Your task to perform on an android device: Open Google Chrome Image 0: 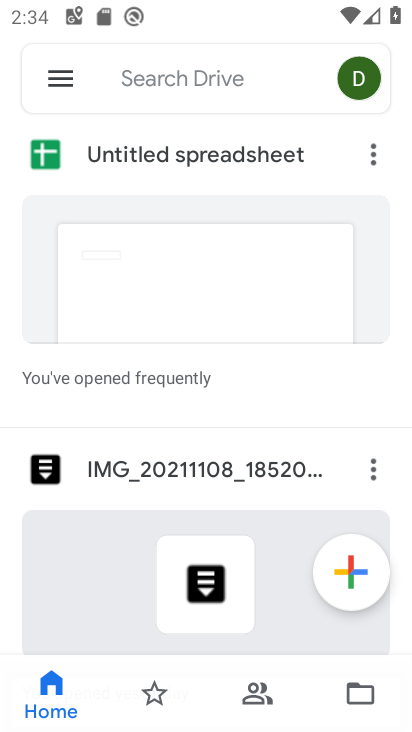
Step 0: press back button
Your task to perform on an android device: Open Google Chrome Image 1: 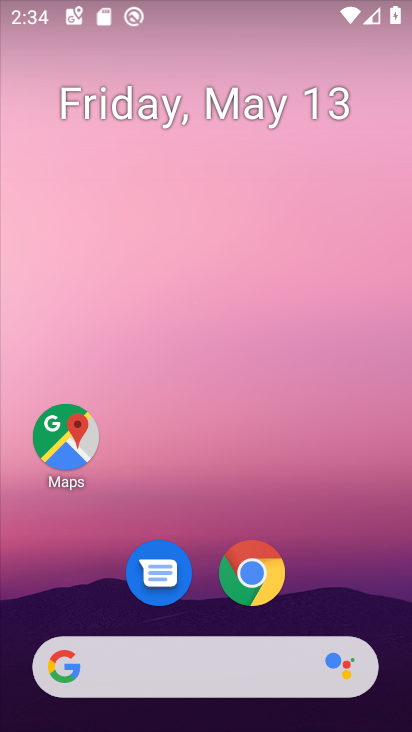
Step 1: drag from (342, 650) to (62, 126)
Your task to perform on an android device: Open Google Chrome Image 2: 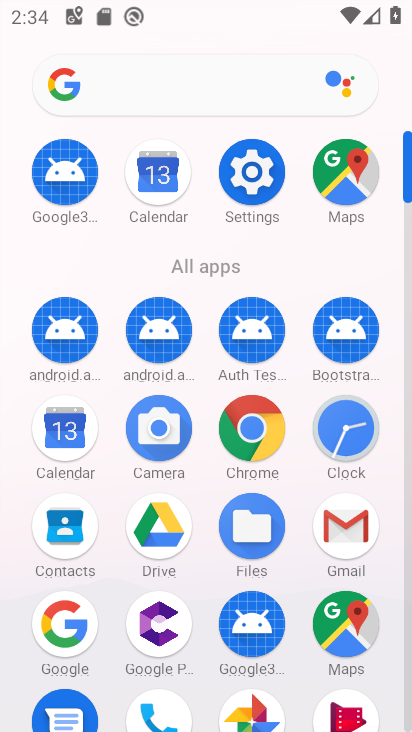
Step 2: drag from (269, 596) to (212, 108)
Your task to perform on an android device: Open Google Chrome Image 3: 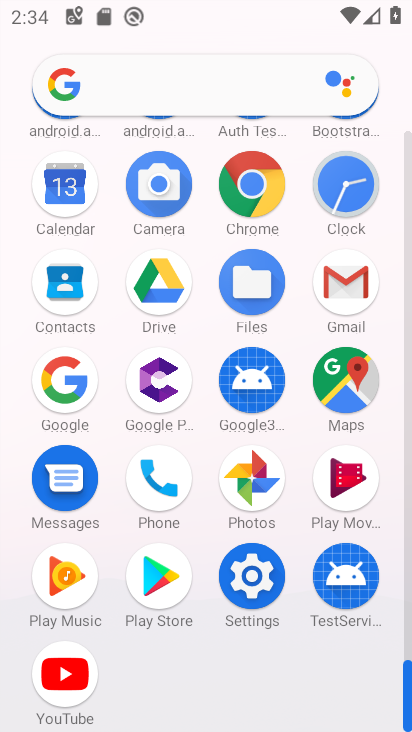
Step 3: click (238, 182)
Your task to perform on an android device: Open Google Chrome Image 4: 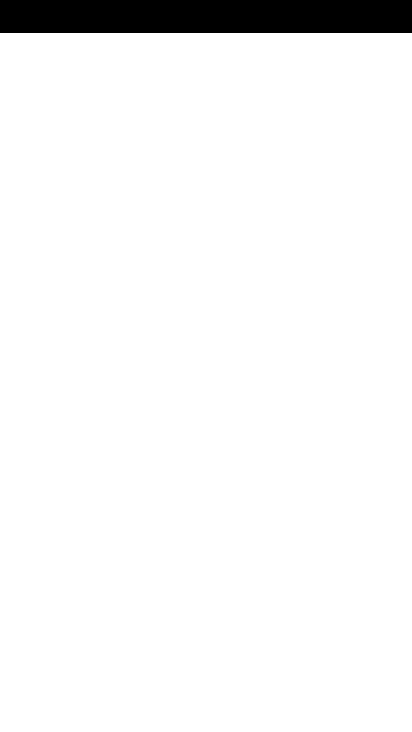
Step 4: click (247, 174)
Your task to perform on an android device: Open Google Chrome Image 5: 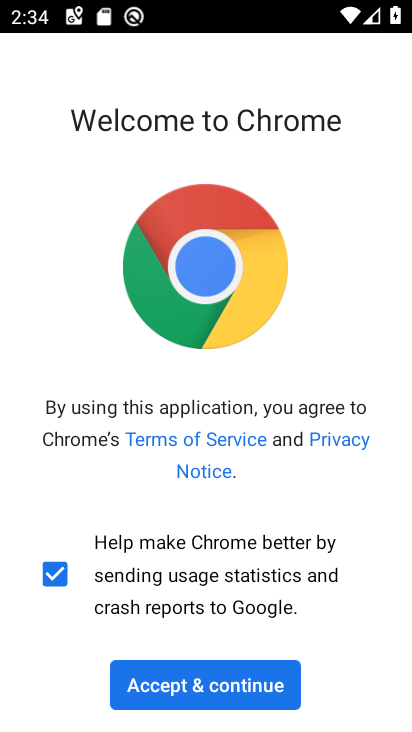
Step 5: click (227, 682)
Your task to perform on an android device: Open Google Chrome Image 6: 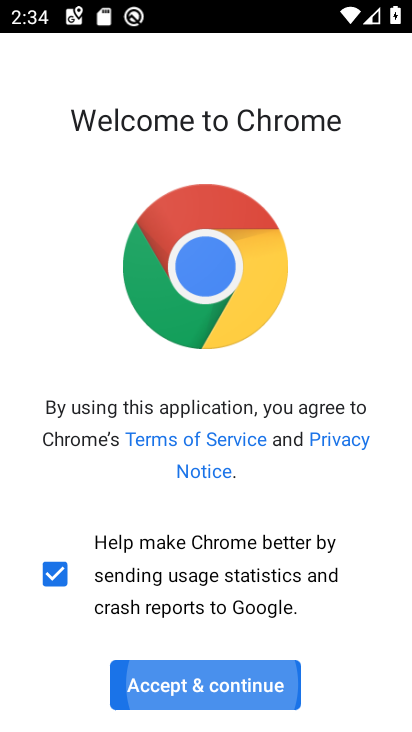
Step 6: click (227, 682)
Your task to perform on an android device: Open Google Chrome Image 7: 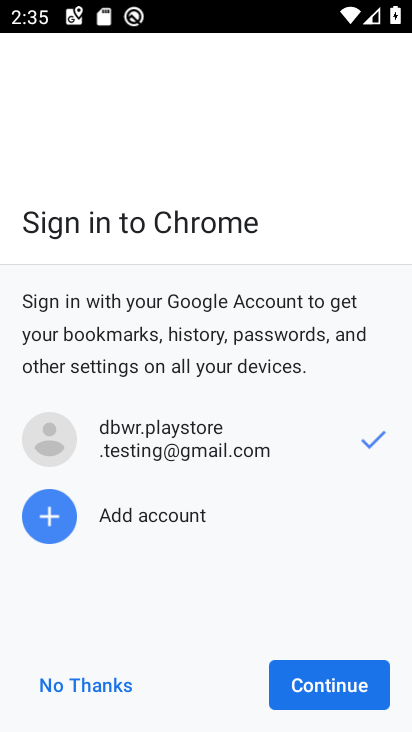
Step 7: click (333, 683)
Your task to perform on an android device: Open Google Chrome Image 8: 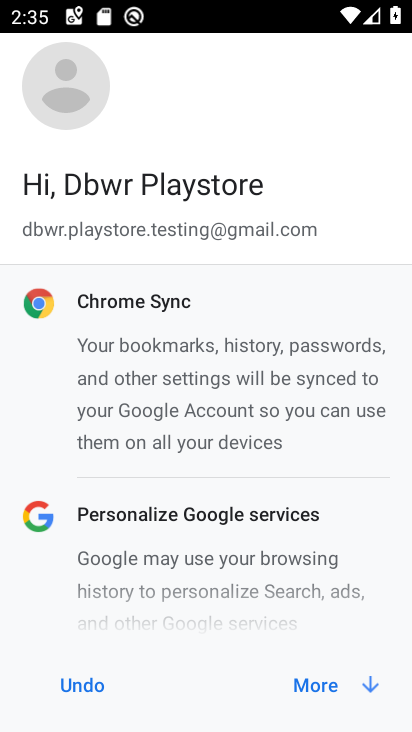
Step 8: click (309, 674)
Your task to perform on an android device: Open Google Chrome Image 9: 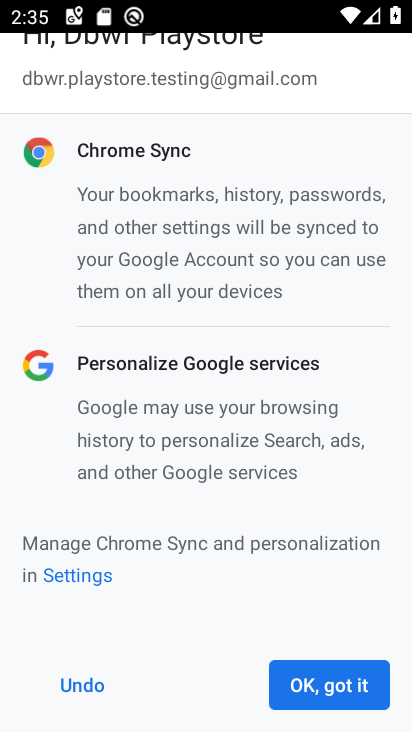
Step 9: click (323, 679)
Your task to perform on an android device: Open Google Chrome Image 10: 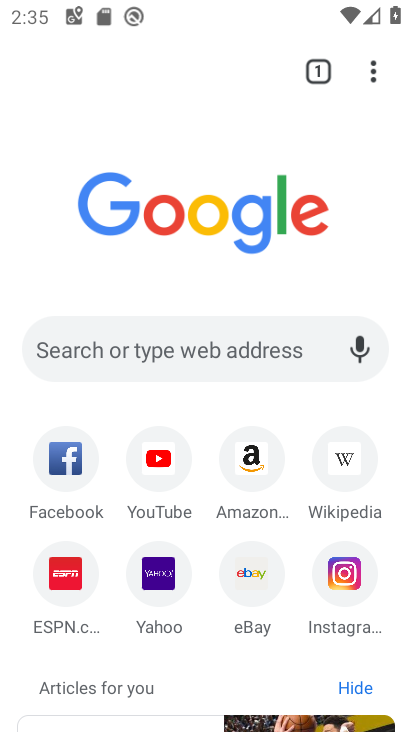
Step 10: press back button
Your task to perform on an android device: Open Google Chrome Image 11: 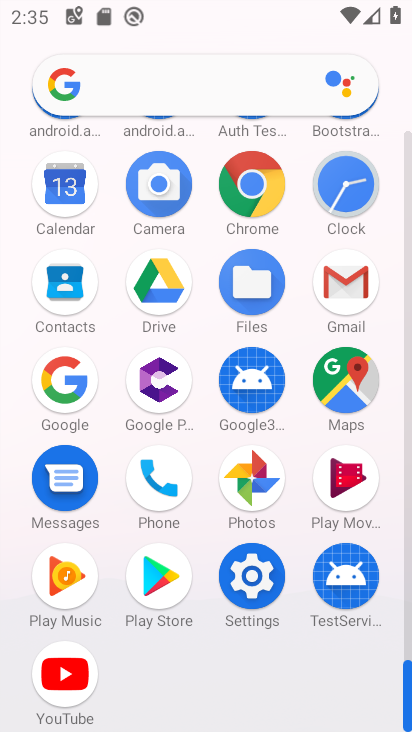
Step 11: click (70, 391)
Your task to perform on an android device: Open Google Chrome Image 12: 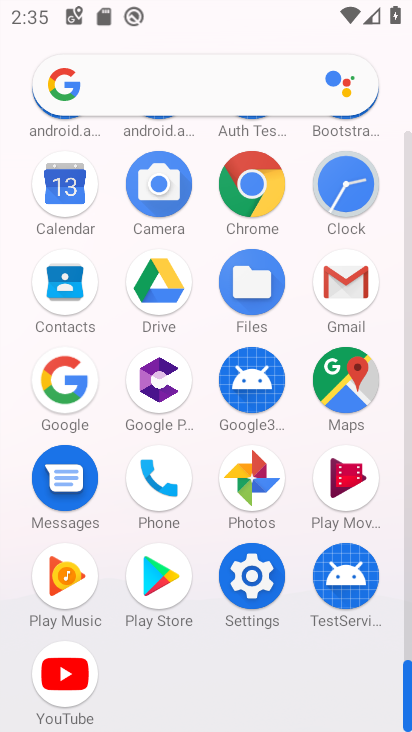
Step 12: click (70, 391)
Your task to perform on an android device: Open Google Chrome Image 13: 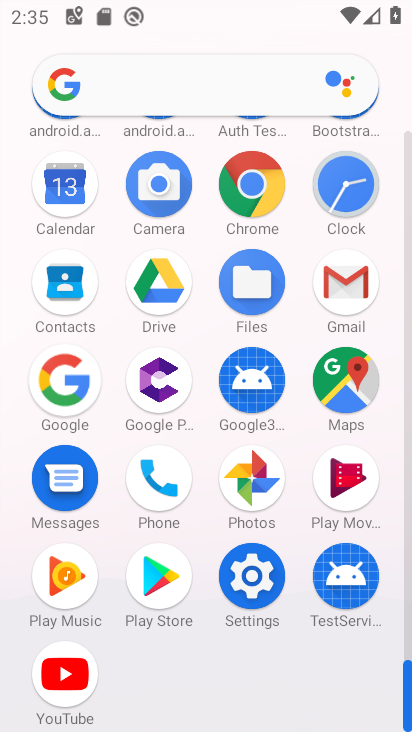
Step 13: click (70, 391)
Your task to perform on an android device: Open Google Chrome Image 14: 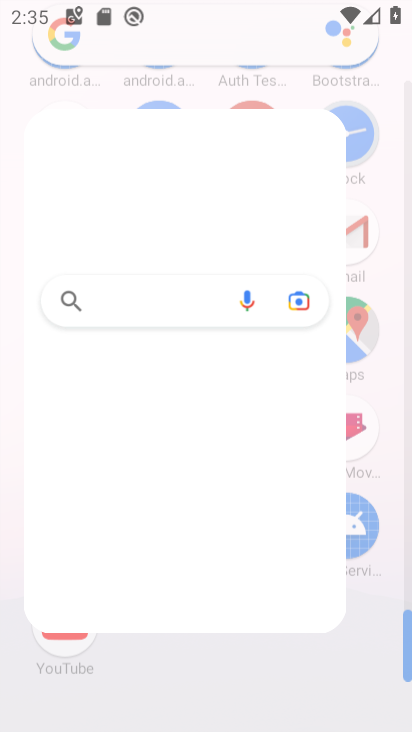
Step 14: click (70, 390)
Your task to perform on an android device: Open Google Chrome Image 15: 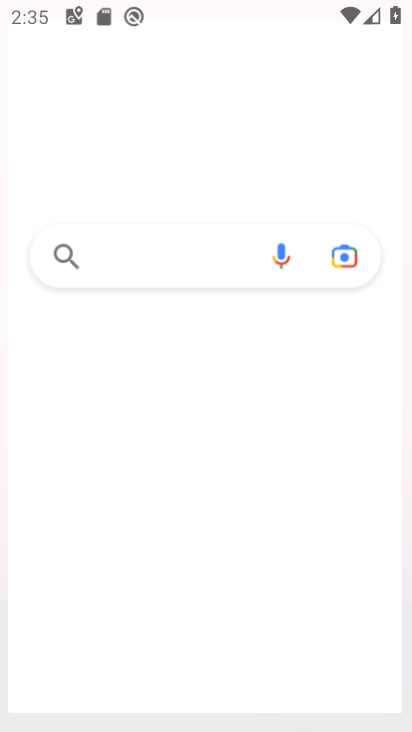
Step 15: click (60, 389)
Your task to perform on an android device: Open Google Chrome Image 16: 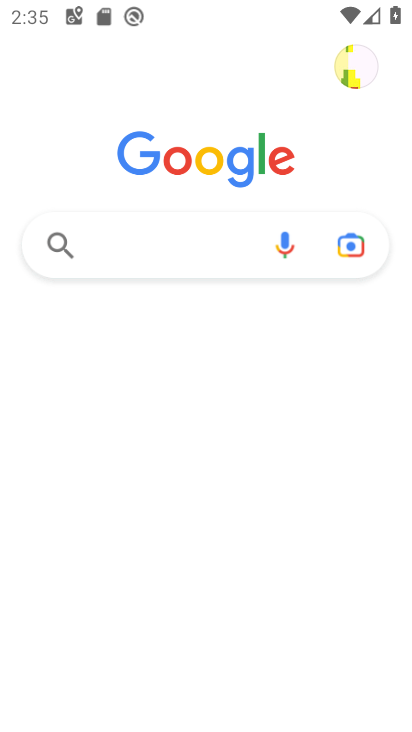
Step 16: click (60, 389)
Your task to perform on an android device: Open Google Chrome Image 17: 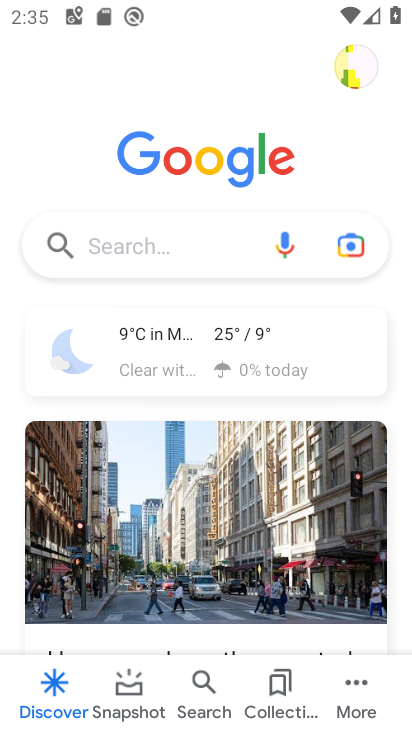
Step 17: task complete